Your task to perform on an android device: Go to Android settings Image 0: 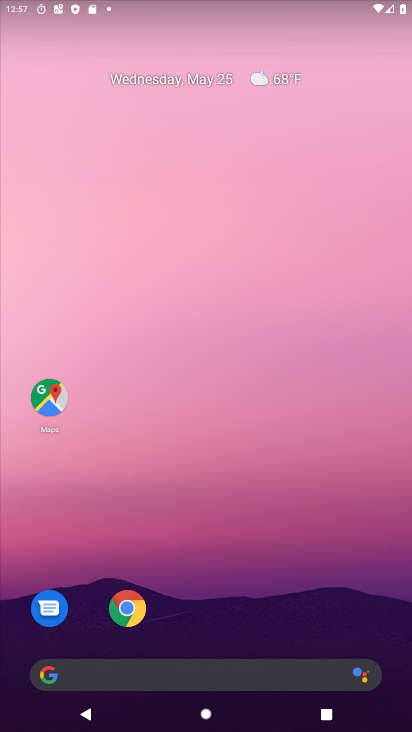
Step 0: drag from (350, 616) to (310, 0)
Your task to perform on an android device: Go to Android settings Image 1: 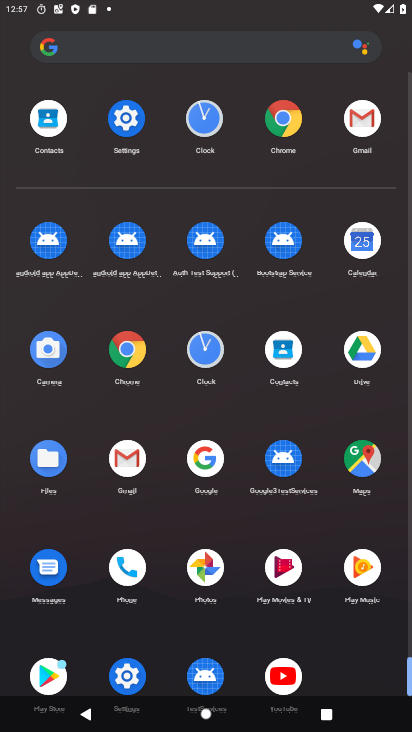
Step 1: click (116, 147)
Your task to perform on an android device: Go to Android settings Image 2: 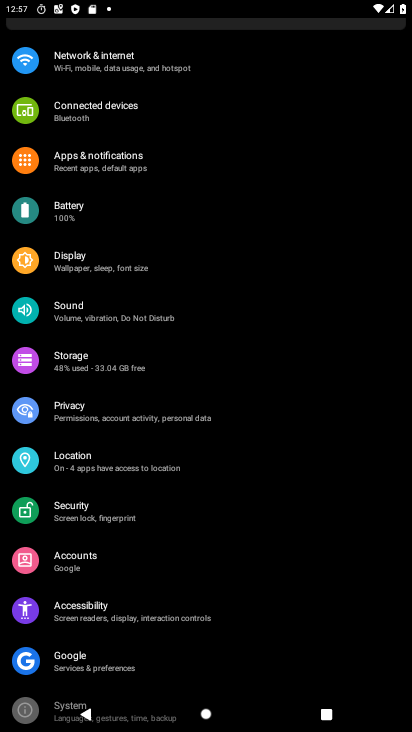
Step 2: task complete